Your task to perform on an android device: toggle priority inbox in the gmail app Image 0: 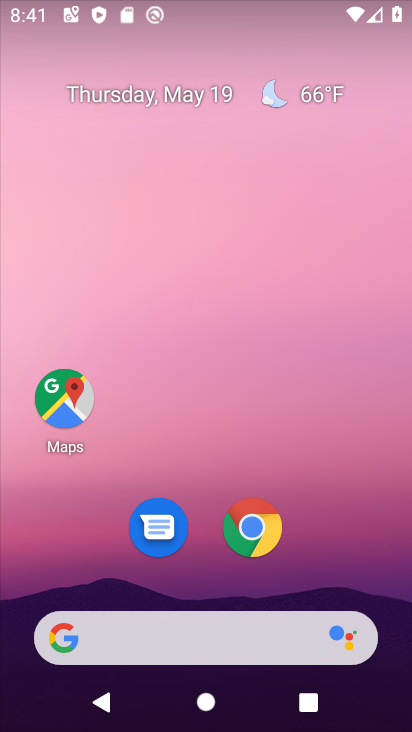
Step 0: drag from (348, 553) to (276, 36)
Your task to perform on an android device: toggle priority inbox in the gmail app Image 1: 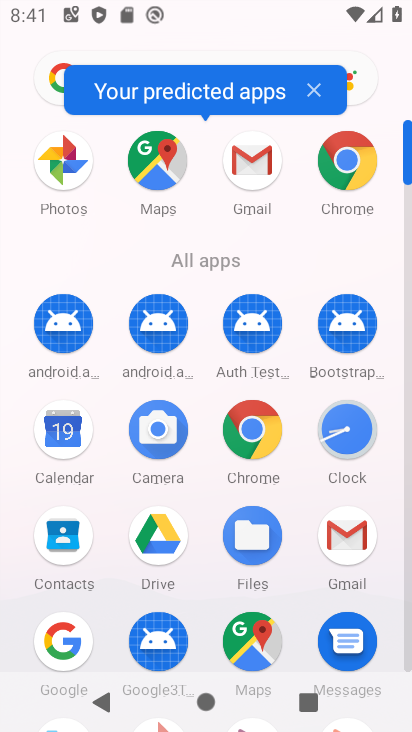
Step 1: click (238, 161)
Your task to perform on an android device: toggle priority inbox in the gmail app Image 2: 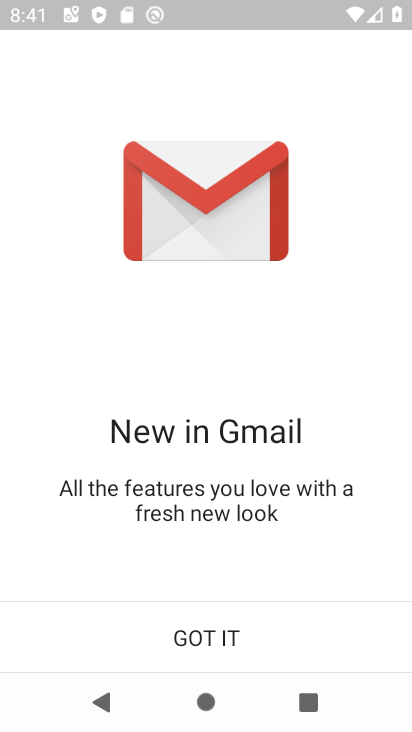
Step 2: click (149, 651)
Your task to perform on an android device: toggle priority inbox in the gmail app Image 3: 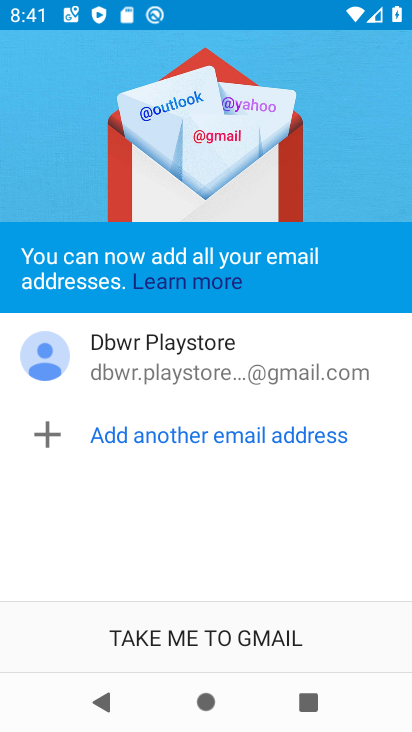
Step 3: click (157, 624)
Your task to perform on an android device: toggle priority inbox in the gmail app Image 4: 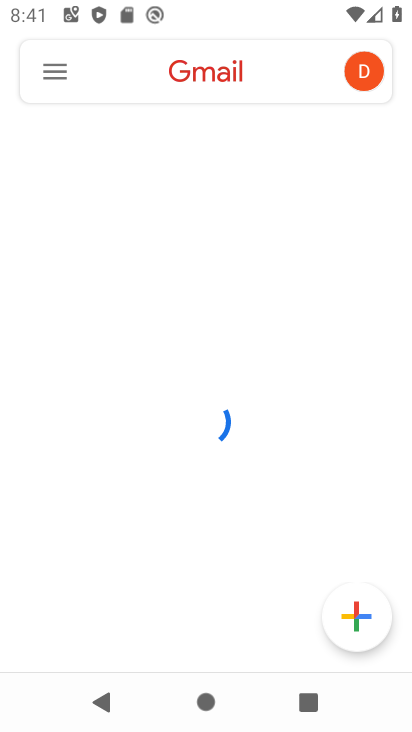
Step 4: click (44, 64)
Your task to perform on an android device: toggle priority inbox in the gmail app Image 5: 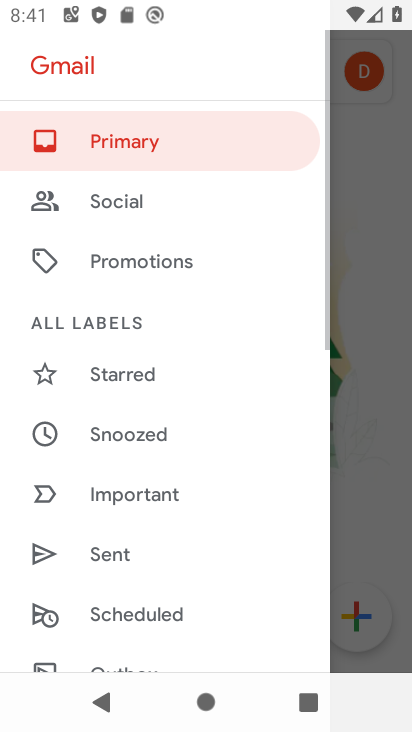
Step 5: drag from (204, 579) to (195, 209)
Your task to perform on an android device: toggle priority inbox in the gmail app Image 6: 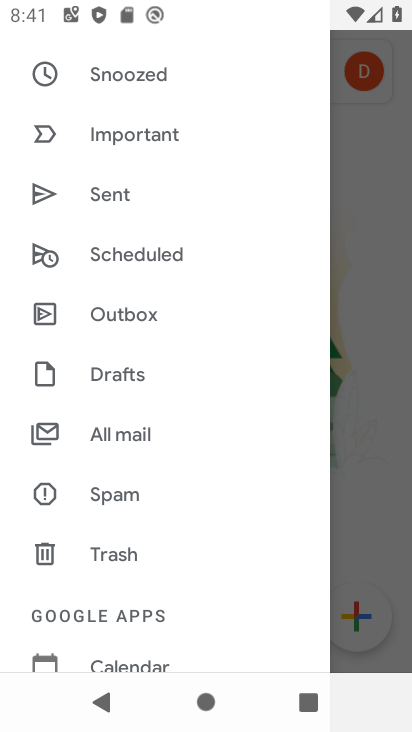
Step 6: drag from (153, 557) to (166, 282)
Your task to perform on an android device: toggle priority inbox in the gmail app Image 7: 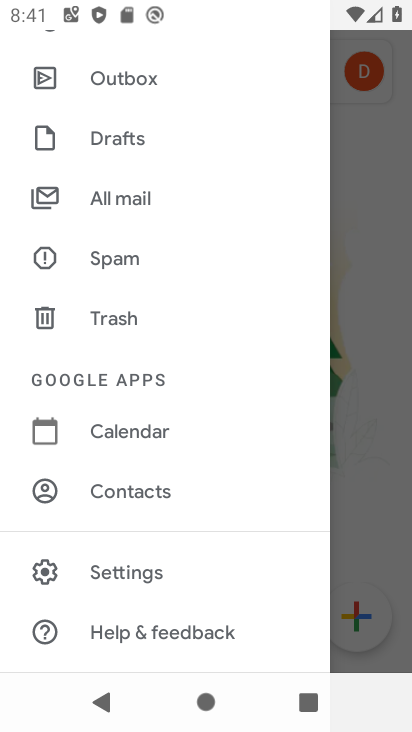
Step 7: click (182, 568)
Your task to perform on an android device: toggle priority inbox in the gmail app Image 8: 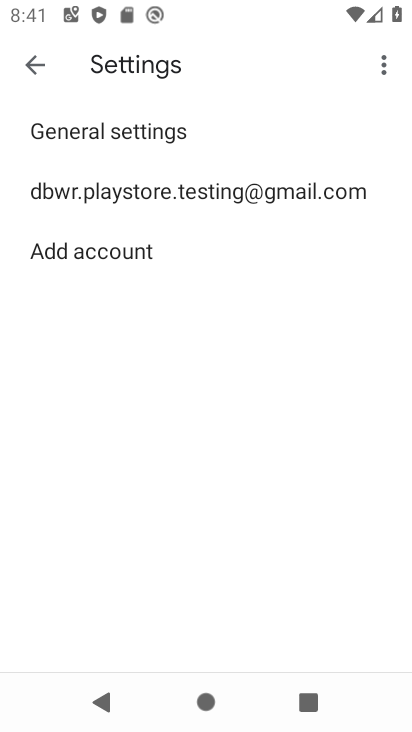
Step 8: click (157, 184)
Your task to perform on an android device: toggle priority inbox in the gmail app Image 9: 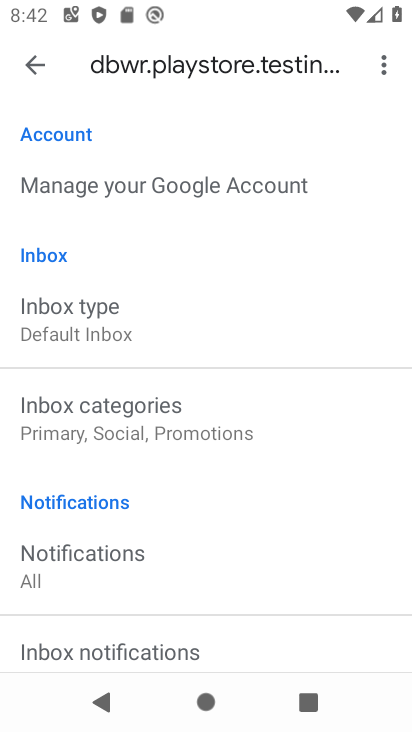
Step 9: click (88, 332)
Your task to perform on an android device: toggle priority inbox in the gmail app Image 10: 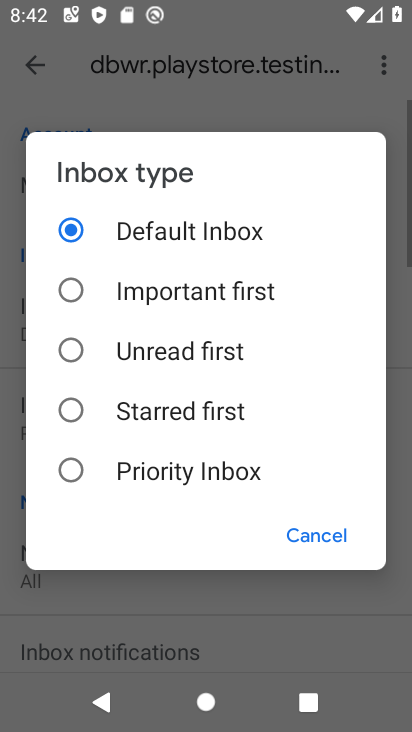
Step 10: click (160, 476)
Your task to perform on an android device: toggle priority inbox in the gmail app Image 11: 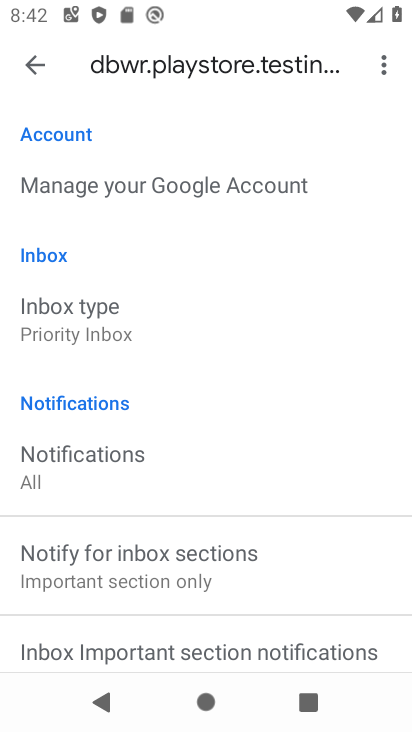
Step 11: task complete